Your task to perform on an android device: Open Maps and search for coffee Image 0: 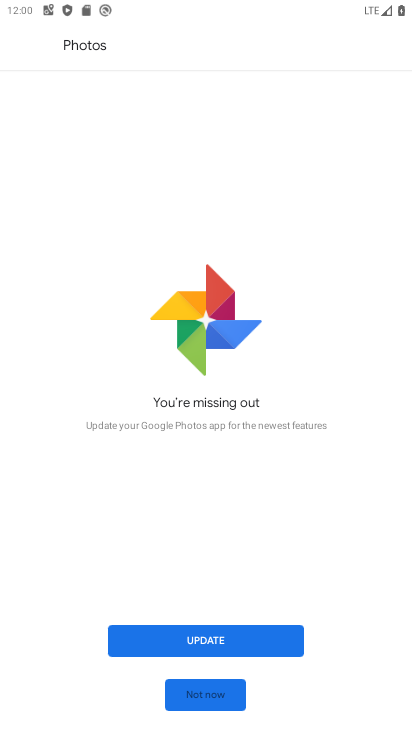
Step 0: press home button
Your task to perform on an android device: Open Maps and search for coffee Image 1: 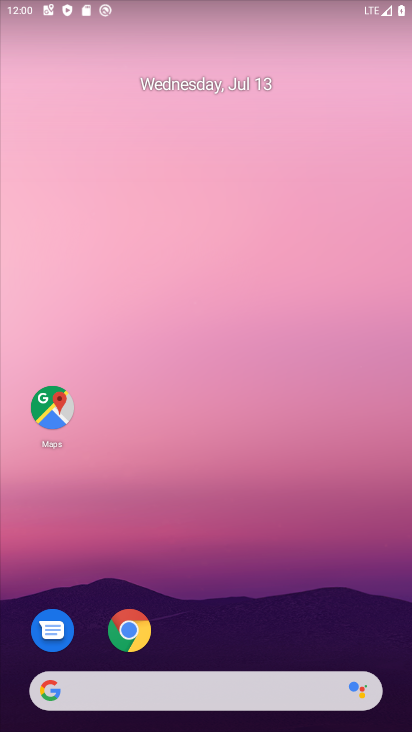
Step 1: drag from (332, 602) to (287, 48)
Your task to perform on an android device: Open Maps and search for coffee Image 2: 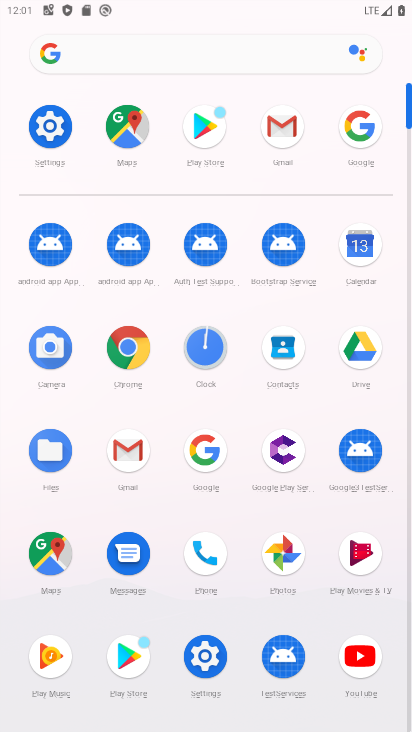
Step 2: click (48, 542)
Your task to perform on an android device: Open Maps and search for coffee Image 3: 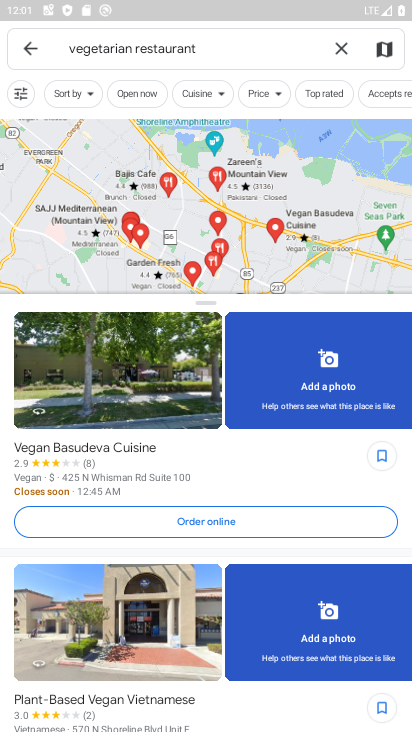
Step 3: click (338, 49)
Your task to perform on an android device: Open Maps and search for coffee Image 4: 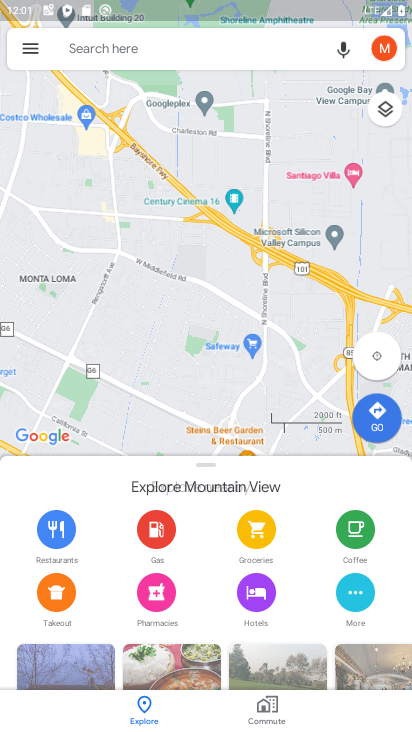
Step 4: click (155, 49)
Your task to perform on an android device: Open Maps and search for coffee Image 5: 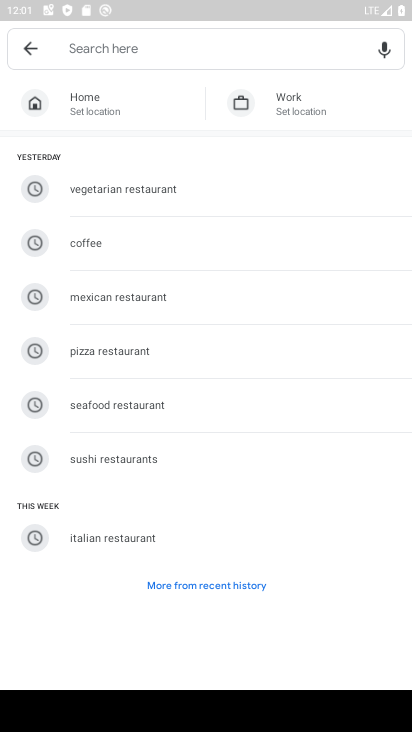
Step 5: click (107, 227)
Your task to perform on an android device: Open Maps and search for coffee Image 6: 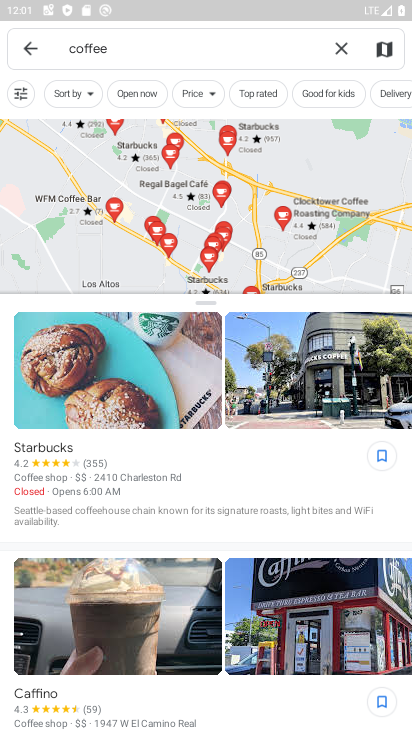
Step 6: task complete